Your task to perform on an android device: Add lenovo thinkpad to the cart on target Image 0: 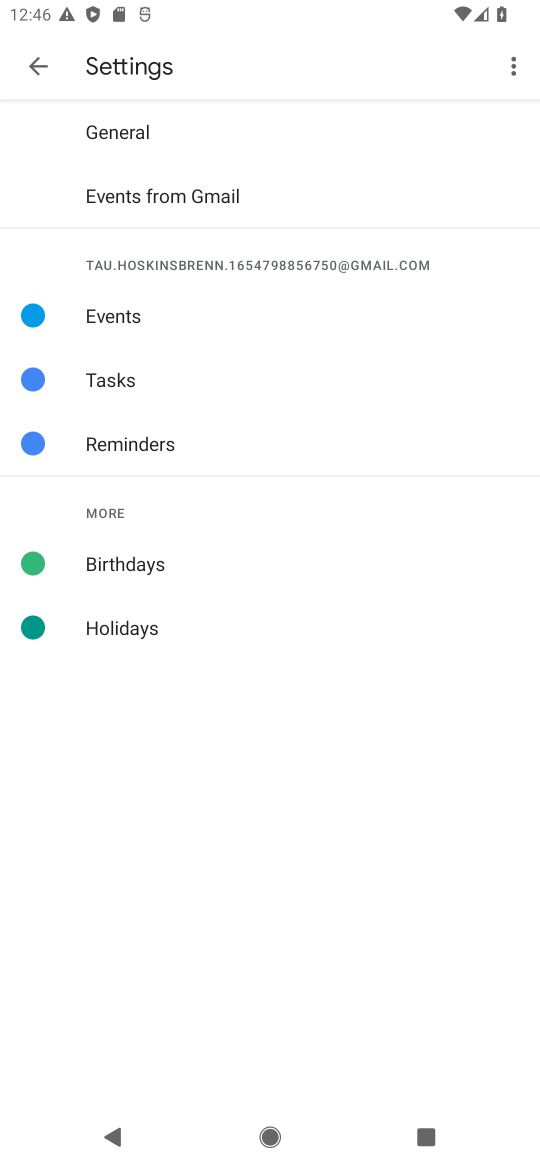
Step 0: press home button
Your task to perform on an android device: Add lenovo thinkpad to the cart on target Image 1: 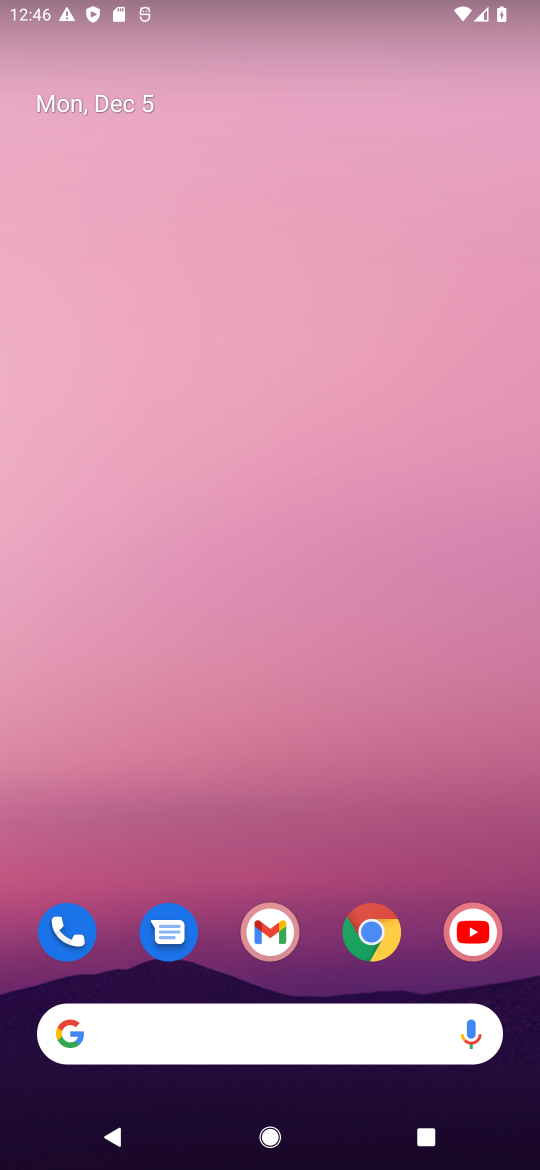
Step 1: click (375, 926)
Your task to perform on an android device: Add lenovo thinkpad to the cart on target Image 2: 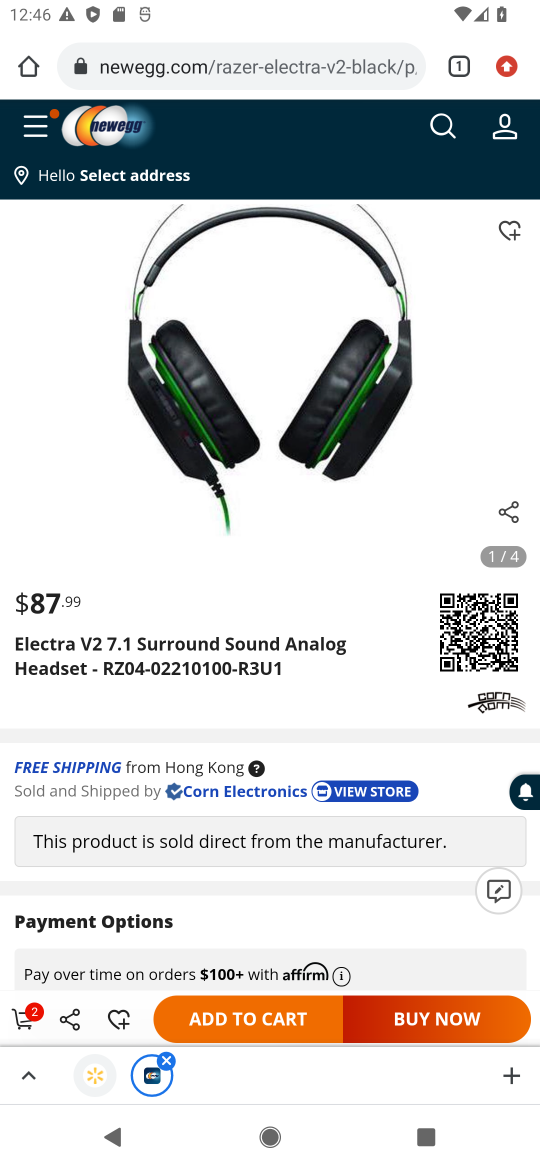
Step 2: click (232, 48)
Your task to perform on an android device: Add lenovo thinkpad to the cart on target Image 3: 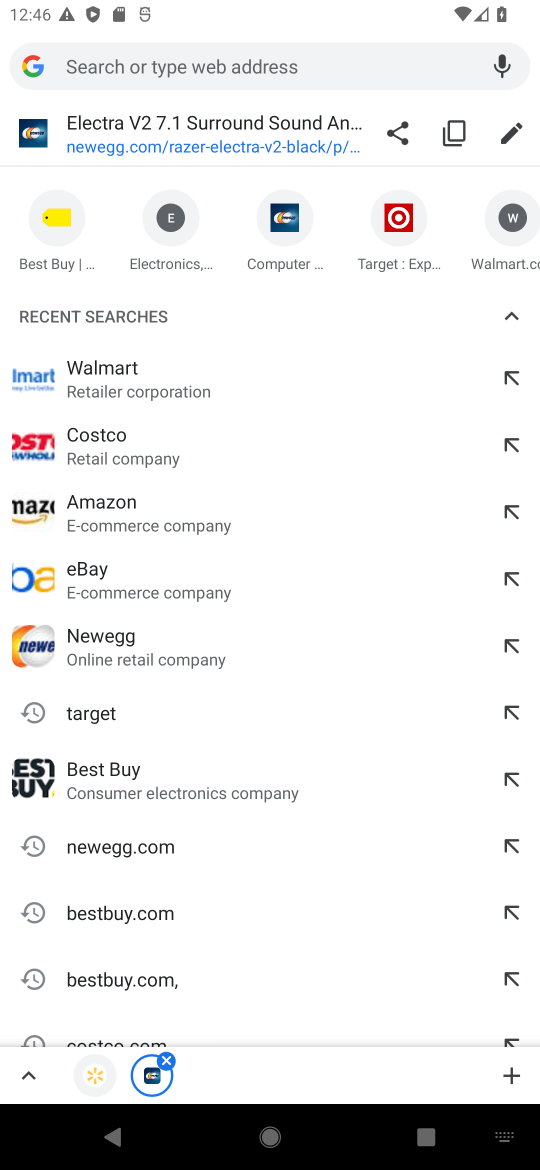
Step 3: type "target"
Your task to perform on an android device: Add lenovo thinkpad to the cart on target Image 4: 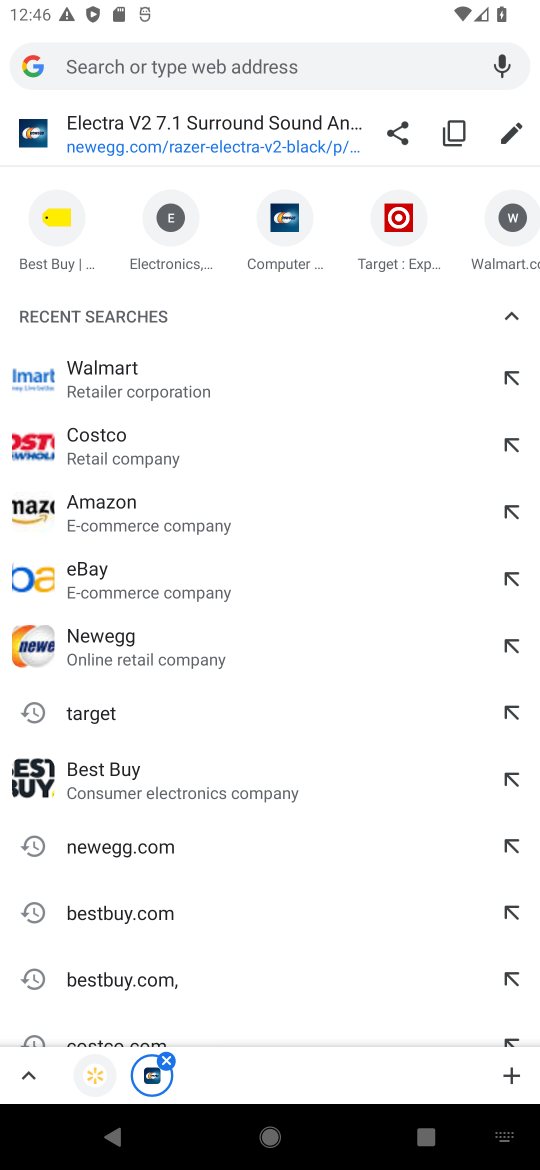
Step 4: click (171, 713)
Your task to perform on an android device: Add lenovo thinkpad to the cart on target Image 5: 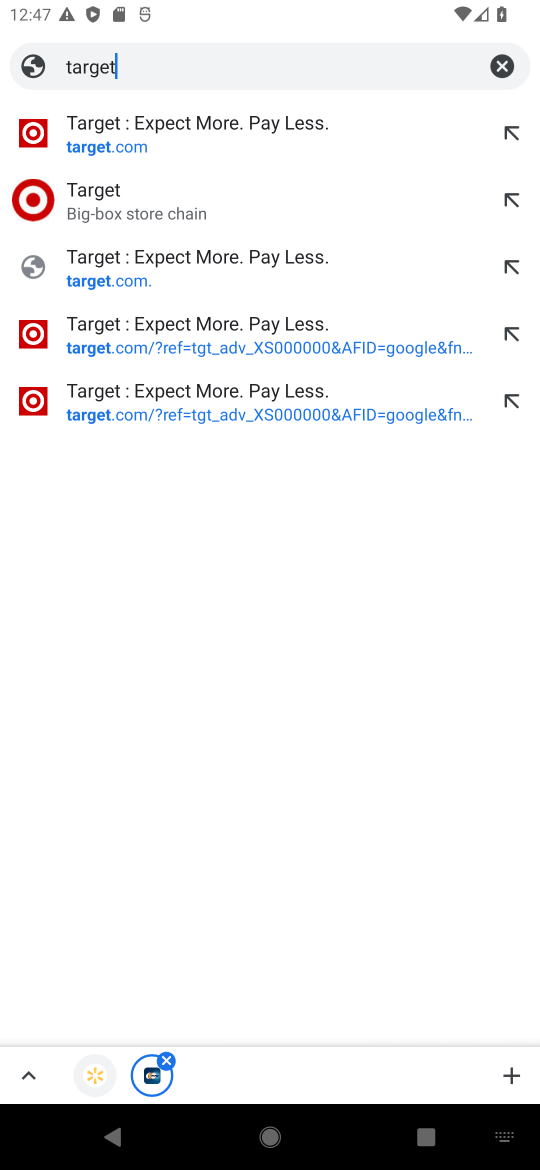
Step 5: click (156, 126)
Your task to perform on an android device: Add lenovo thinkpad to the cart on target Image 6: 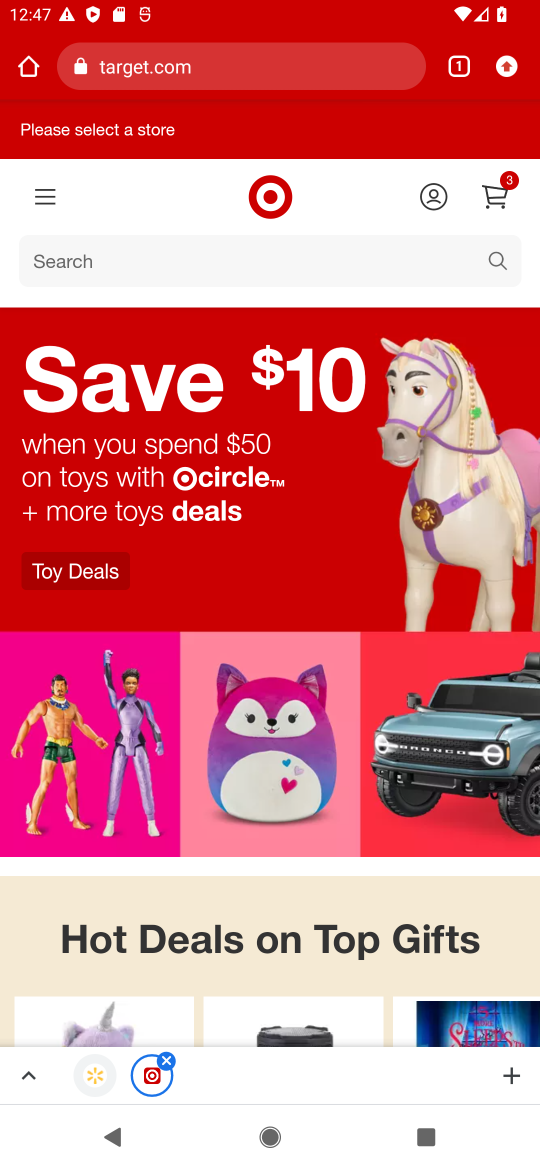
Step 6: click (212, 250)
Your task to perform on an android device: Add lenovo thinkpad to the cart on target Image 7: 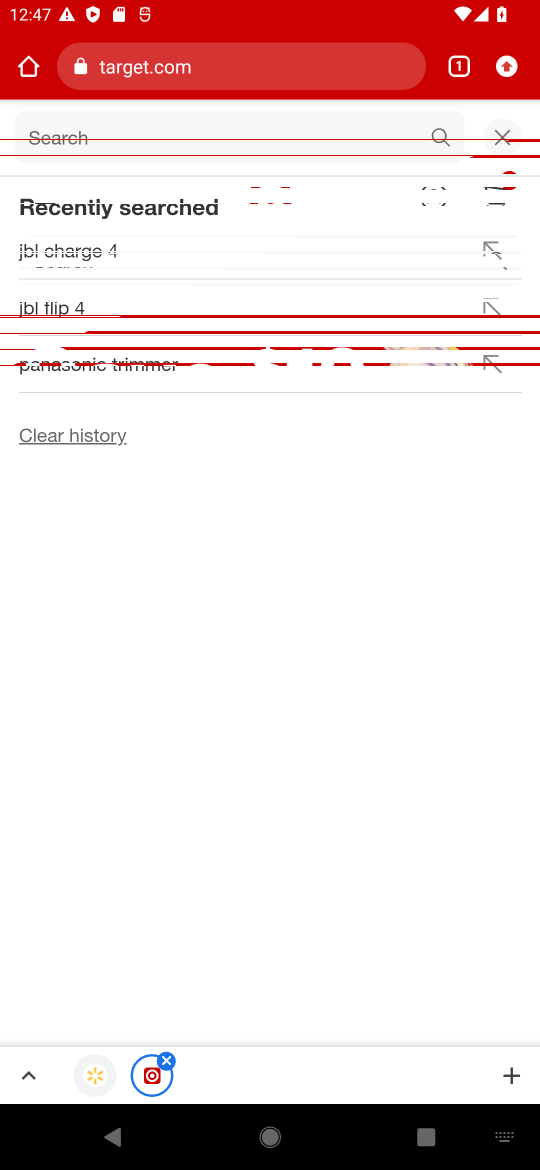
Step 7: type "lenovo thinkpad"
Your task to perform on an android device: Add lenovo thinkpad to the cart on target Image 8: 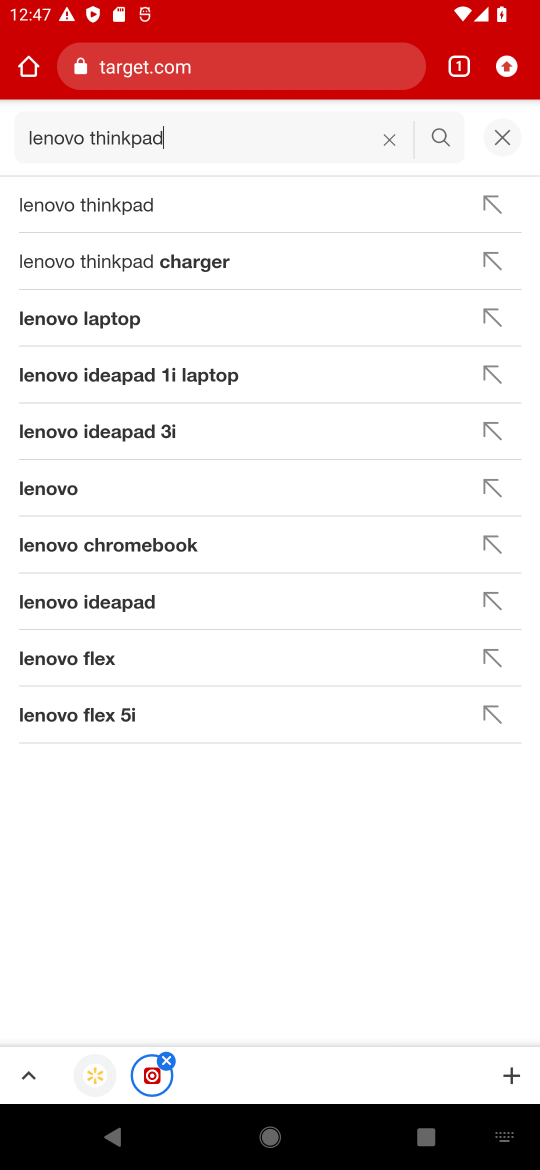
Step 8: click (125, 203)
Your task to perform on an android device: Add lenovo thinkpad to the cart on target Image 9: 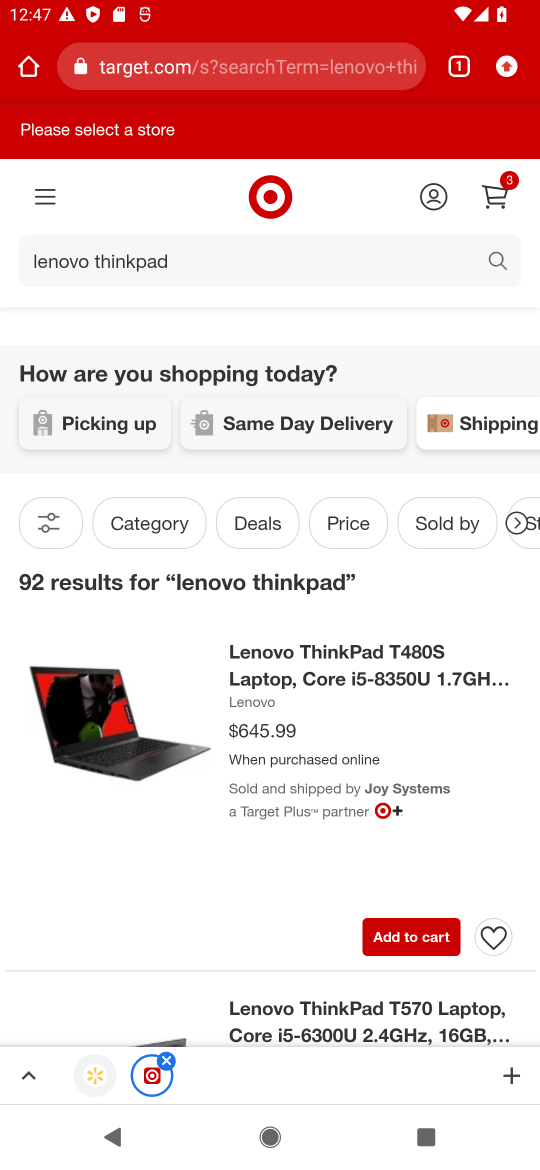
Step 9: click (404, 937)
Your task to perform on an android device: Add lenovo thinkpad to the cart on target Image 10: 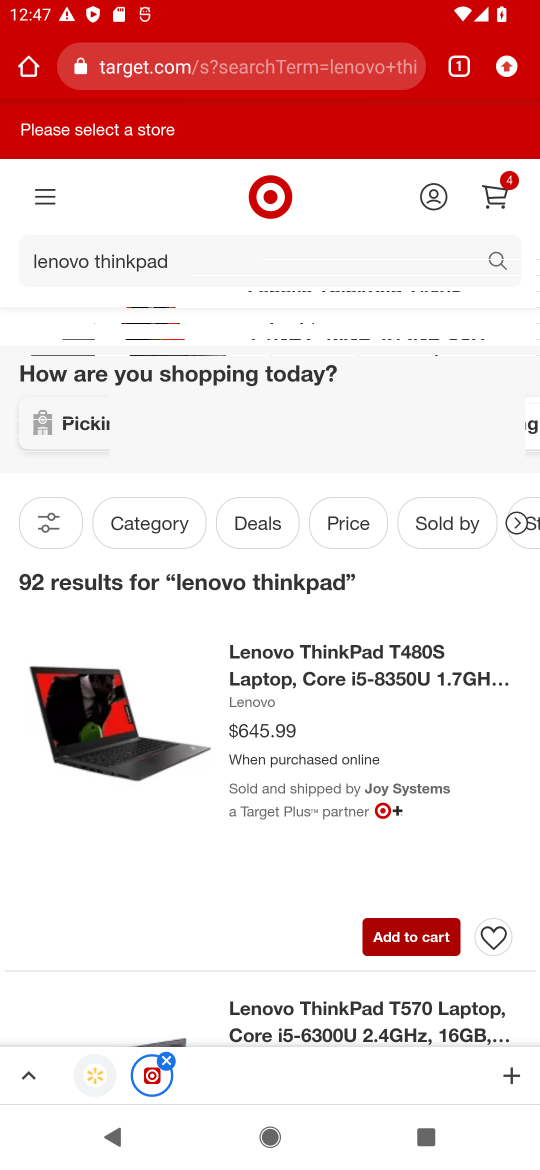
Step 10: click (426, 927)
Your task to perform on an android device: Add lenovo thinkpad to the cart on target Image 11: 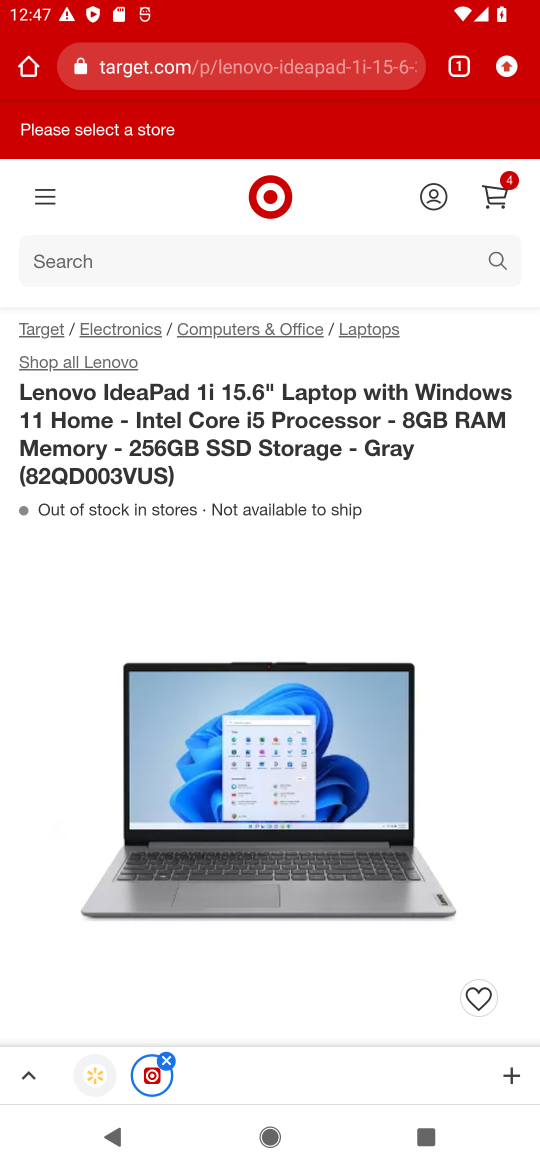
Step 11: drag from (346, 974) to (323, 276)
Your task to perform on an android device: Add lenovo thinkpad to the cart on target Image 12: 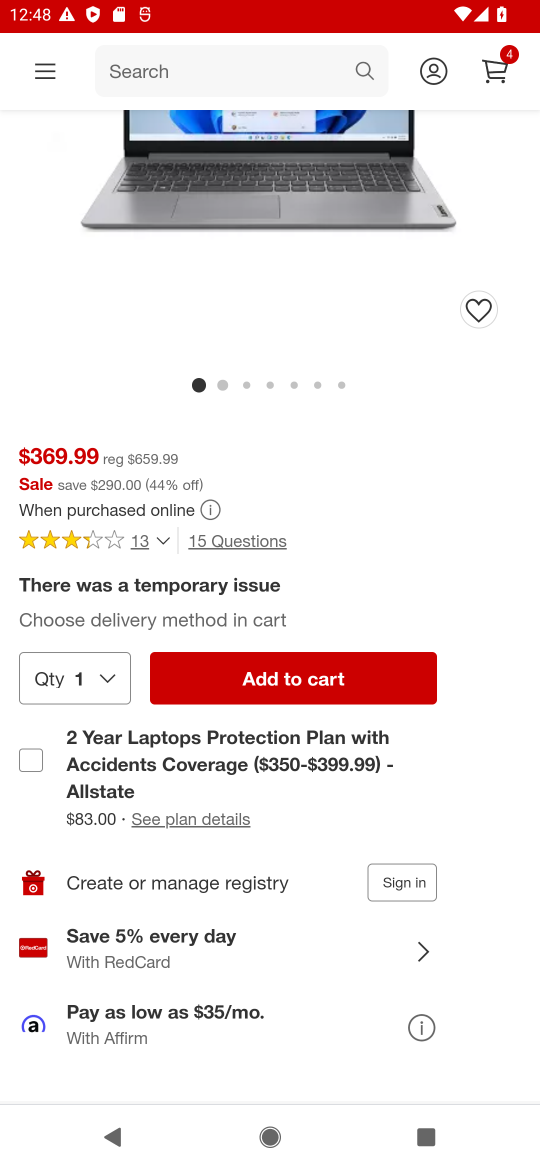
Step 12: click (234, 683)
Your task to perform on an android device: Add lenovo thinkpad to the cart on target Image 13: 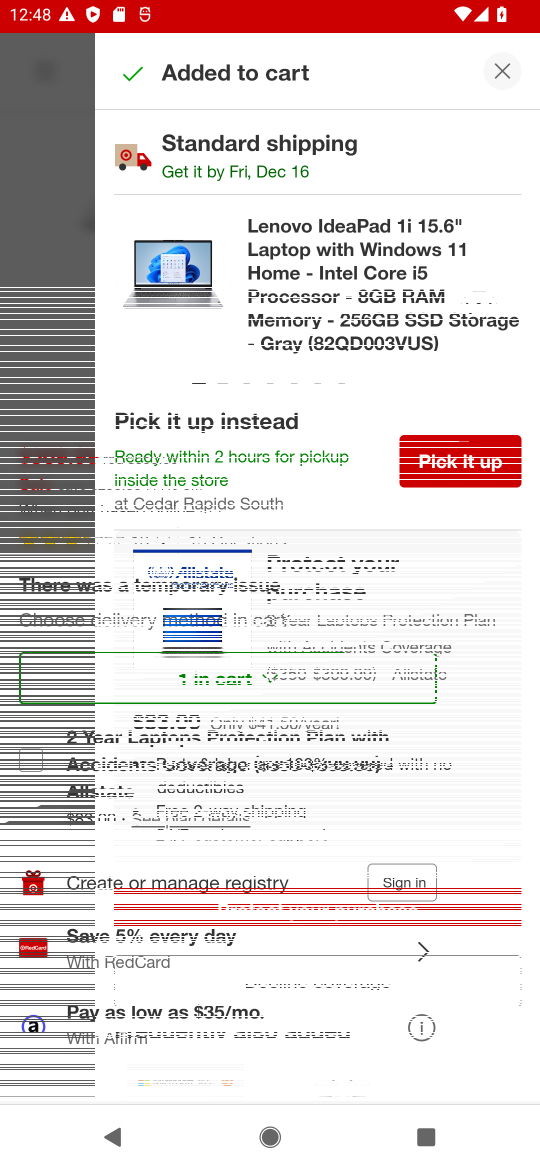
Step 13: task complete